Your task to perform on an android device: Show me popular games on the Play Store Image 0: 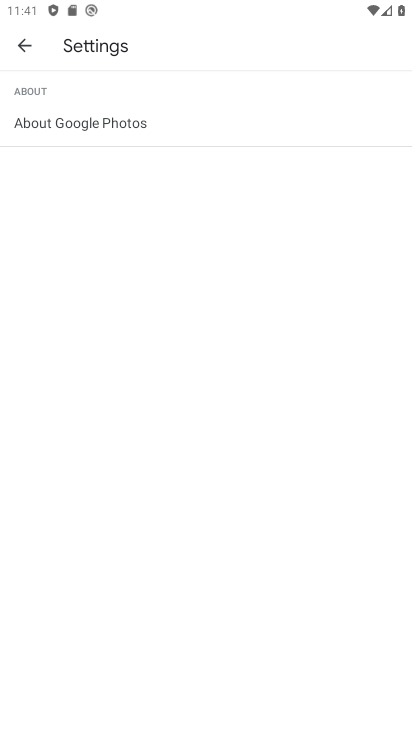
Step 0: press home button
Your task to perform on an android device: Show me popular games on the Play Store Image 1: 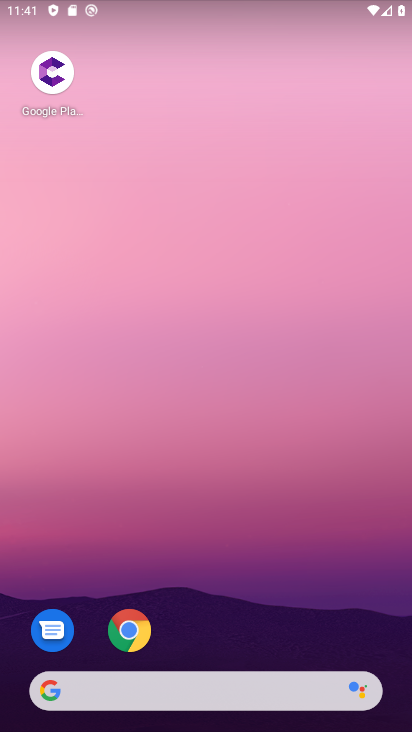
Step 1: drag from (231, 728) to (210, 30)
Your task to perform on an android device: Show me popular games on the Play Store Image 2: 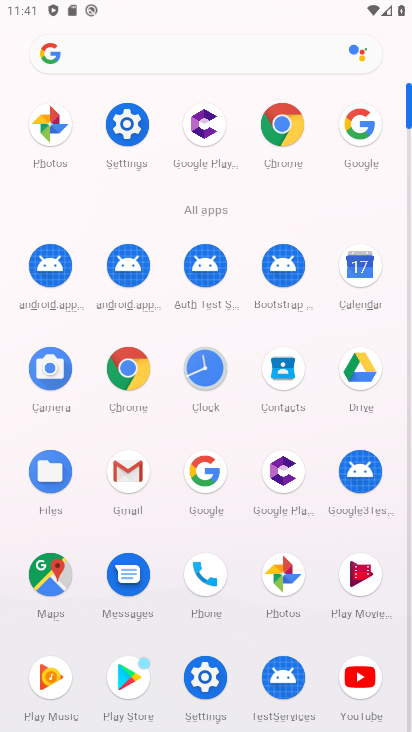
Step 2: click (131, 674)
Your task to perform on an android device: Show me popular games on the Play Store Image 3: 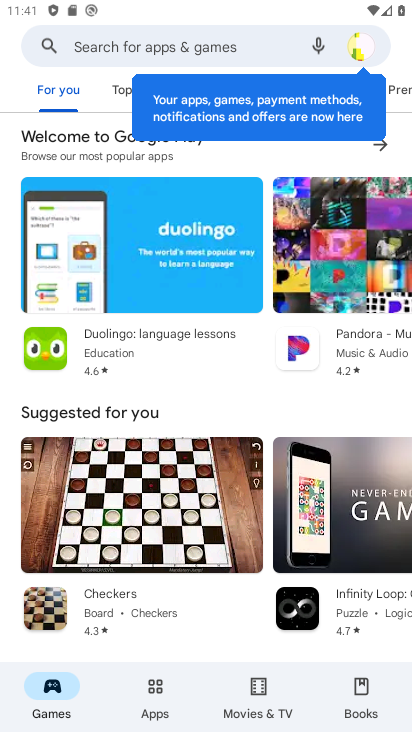
Step 3: drag from (232, 644) to (242, 217)
Your task to perform on an android device: Show me popular games on the Play Store Image 4: 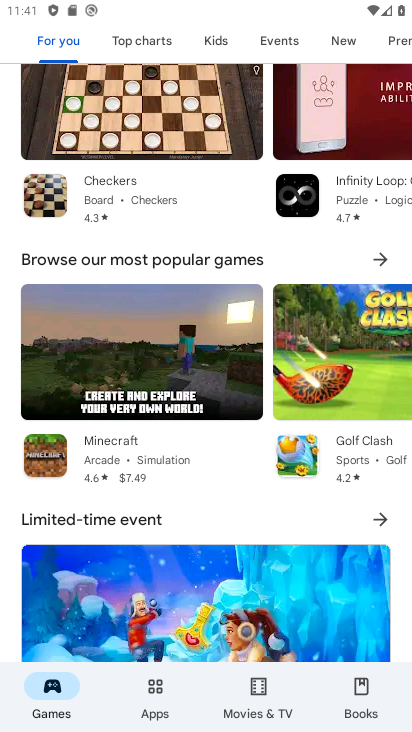
Step 4: click (380, 260)
Your task to perform on an android device: Show me popular games on the Play Store Image 5: 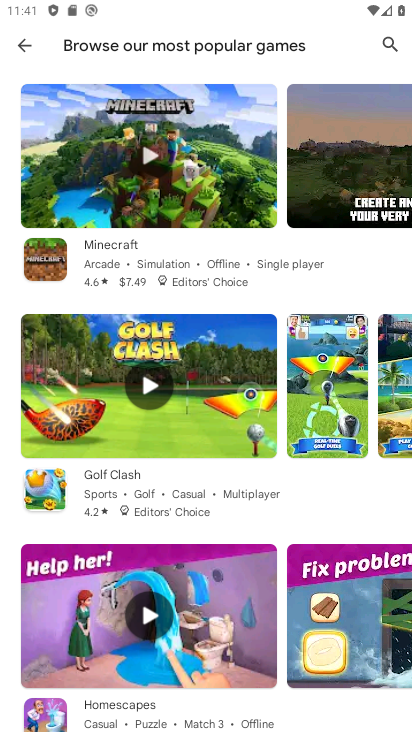
Step 5: task complete